Your task to perform on an android device: Open Google Chrome and click the shortcut for Amazon.com Image 0: 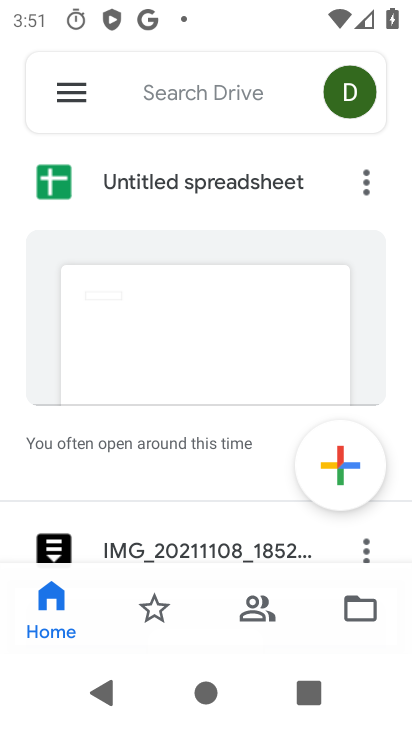
Step 0: press home button
Your task to perform on an android device: Open Google Chrome and click the shortcut for Amazon.com Image 1: 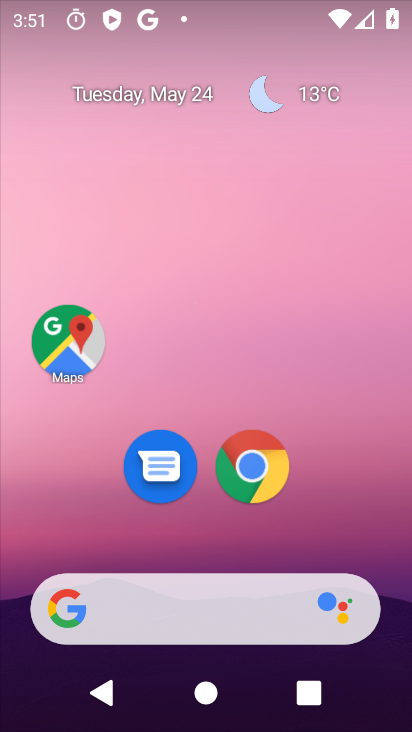
Step 1: click (252, 463)
Your task to perform on an android device: Open Google Chrome and click the shortcut for Amazon.com Image 2: 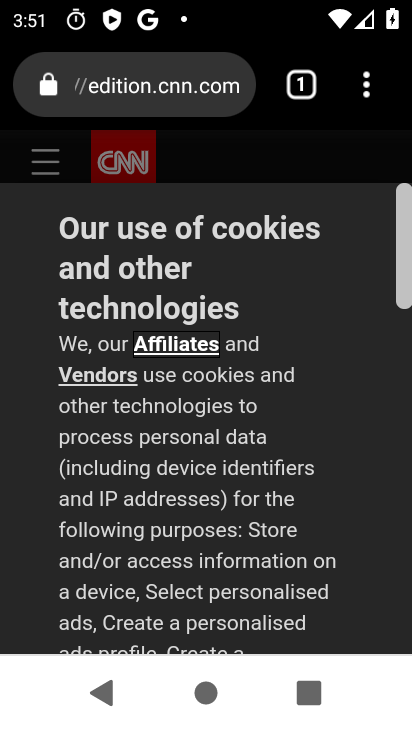
Step 2: click (191, 98)
Your task to perform on an android device: Open Google Chrome and click the shortcut for Amazon.com Image 3: 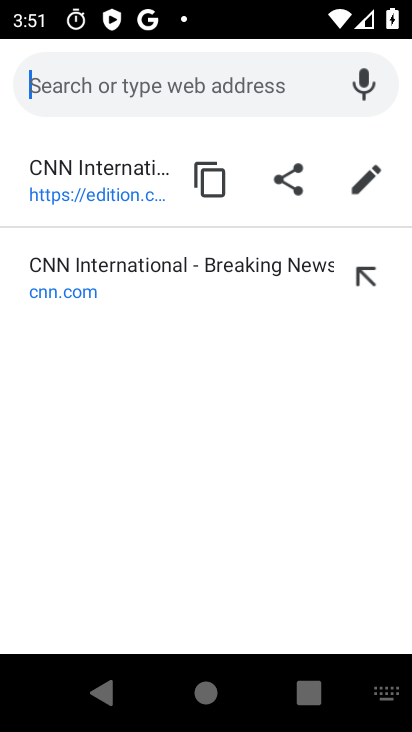
Step 3: type "amazon"
Your task to perform on an android device: Open Google Chrome and click the shortcut for Amazon.com Image 4: 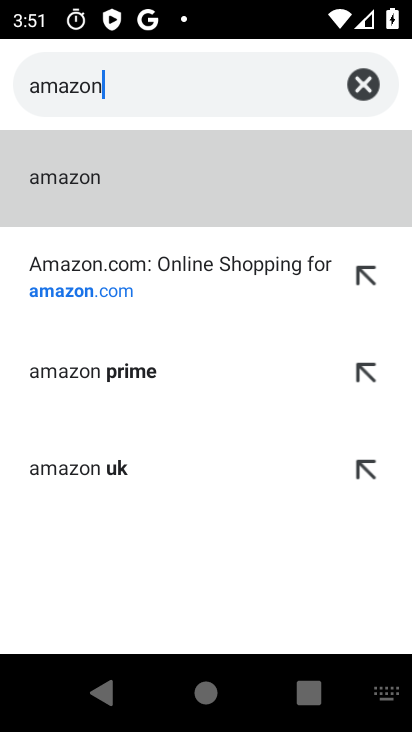
Step 4: click (104, 290)
Your task to perform on an android device: Open Google Chrome and click the shortcut for Amazon.com Image 5: 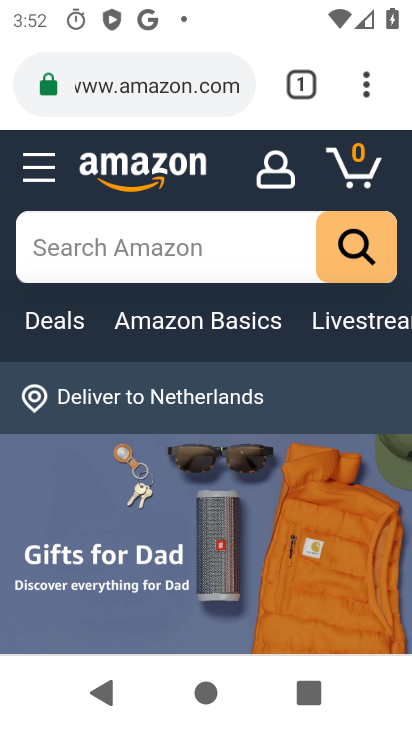
Step 5: drag from (363, 73) to (137, 152)
Your task to perform on an android device: Open Google Chrome and click the shortcut for Amazon.com Image 6: 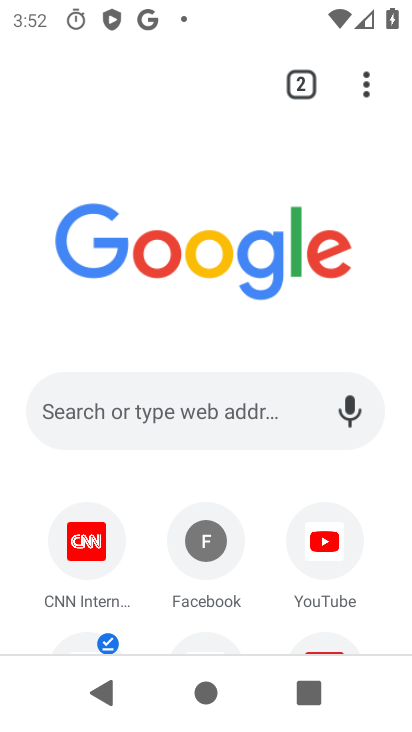
Step 6: drag from (251, 484) to (249, 39)
Your task to perform on an android device: Open Google Chrome and click the shortcut for Amazon.com Image 7: 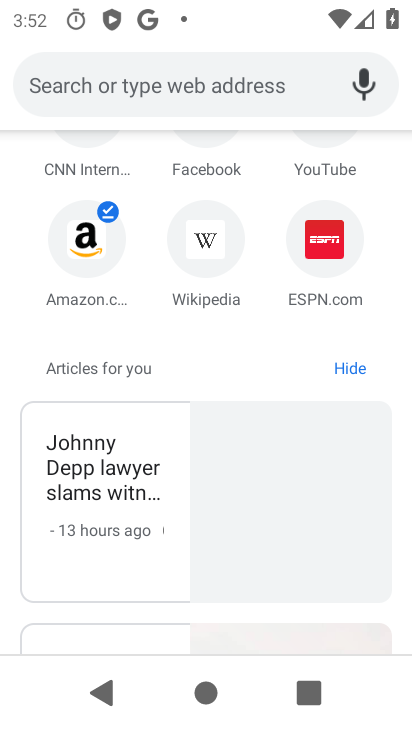
Step 7: click (76, 248)
Your task to perform on an android device: Open Google Chrome and click the shortcut for Amazon.com Image 8: 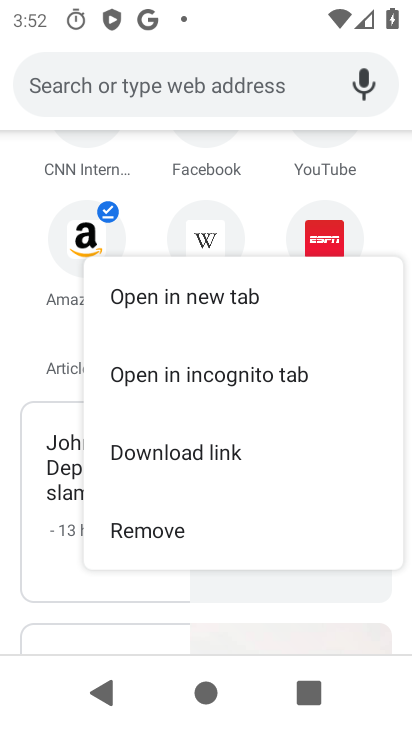
Step 8: click (81, 233)
Your task to perform on an android device: Open Google Chrome and click the shortcut for Amazon.com Image 9: 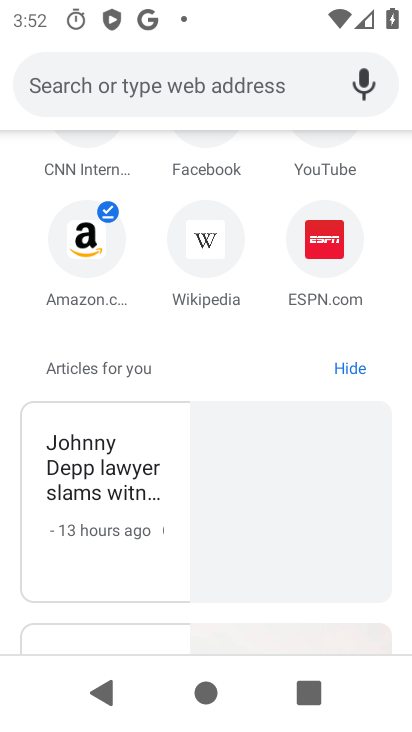
Step 9: click (81, 233)
Your task to perform on an android device: Open Google Chrome and click the shortcut for Amazon.com Image 10: 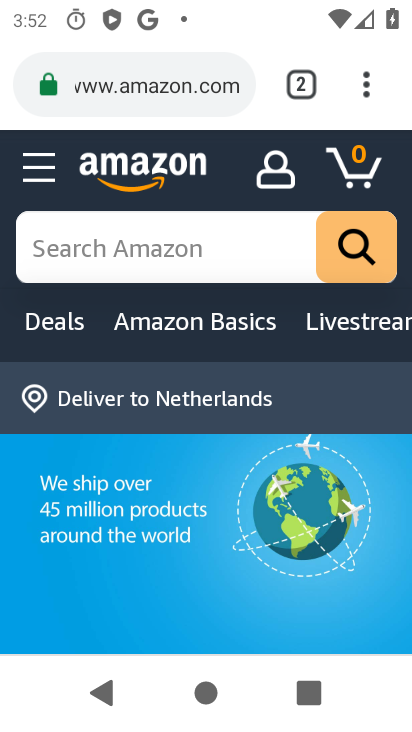
Step 10: task complete